Your task to perform on an android device: add a contact Image 0: 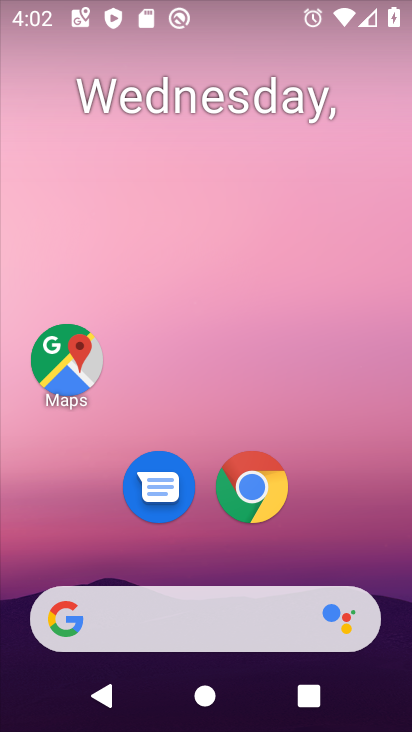
Step 0: drag from (387, 522) to (379, 242)
Your task to perform on an android device: add a contact Image 1: 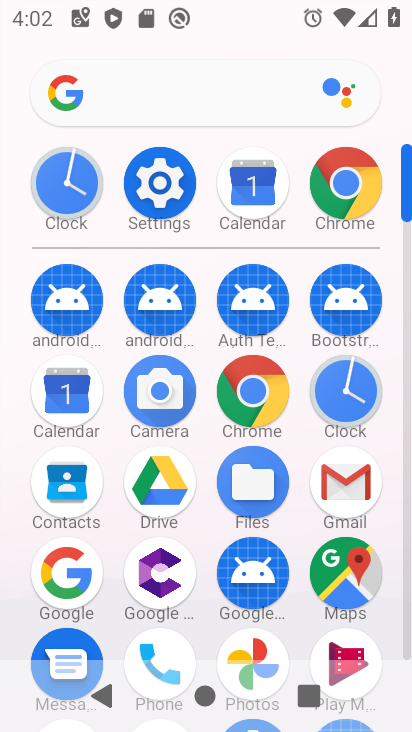
Step 1: click (82, 485)
Your task to perform on an android device: add a contact Image 2: 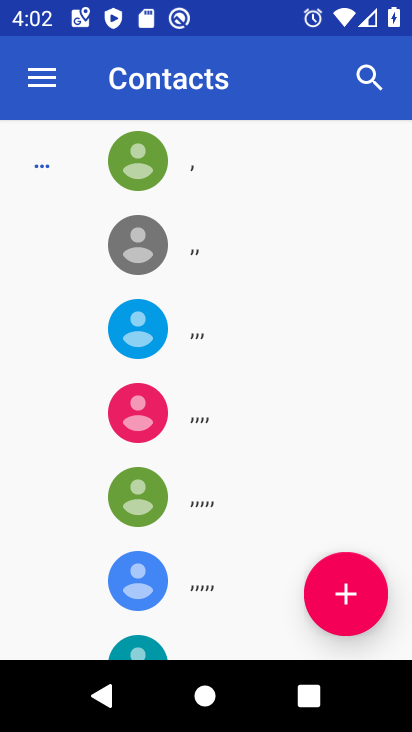
Step 2: click (332, 580)
Your task to perform on an android device: add a contact Image 3: 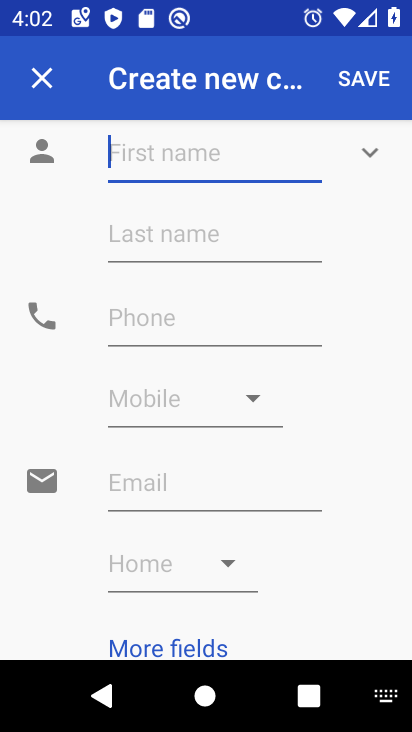
Step 3: type "poooo"
Your task to perform on an android device: add a contact Image 4: 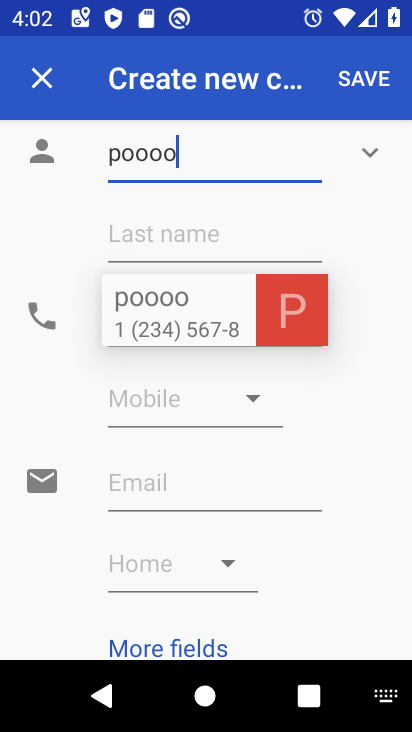
Step 4: click (357, 298)
Your task to perform on an android device: add a contact Image 5: 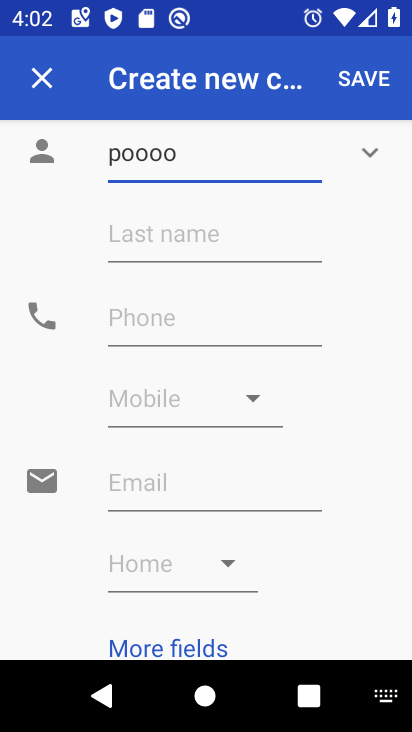
Step 5: click (271, 335)
Your task to perform on an android device: add a contact Image 6: 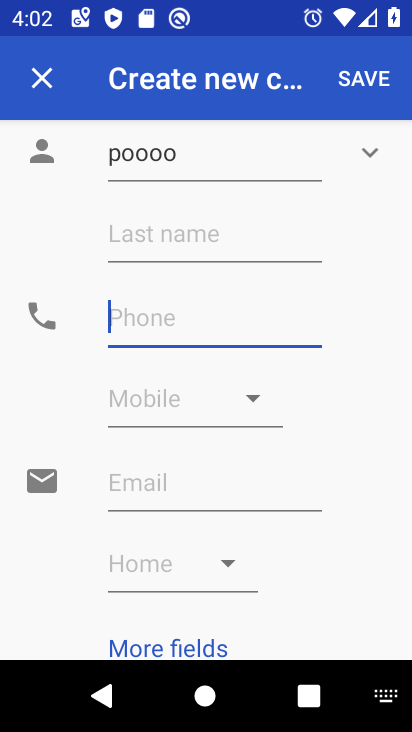
Step 6: type "123456789"
Your task to perform on an android device: add a contact Image 7: 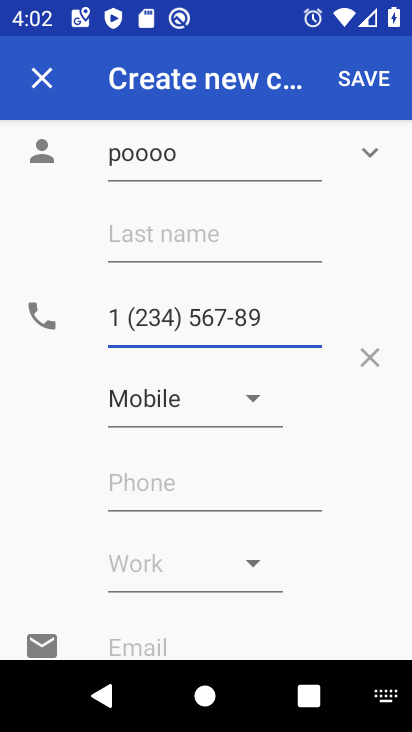
Step 7: click (367, 95)
Your task to perform on an android device: add a contact Image 8: 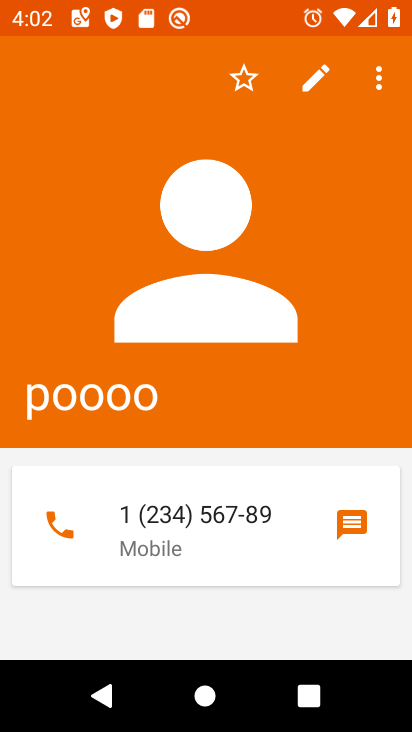
Step 8: task complete